Your task to perform on an android device: make emails show in primary in the gmail app Image 0: 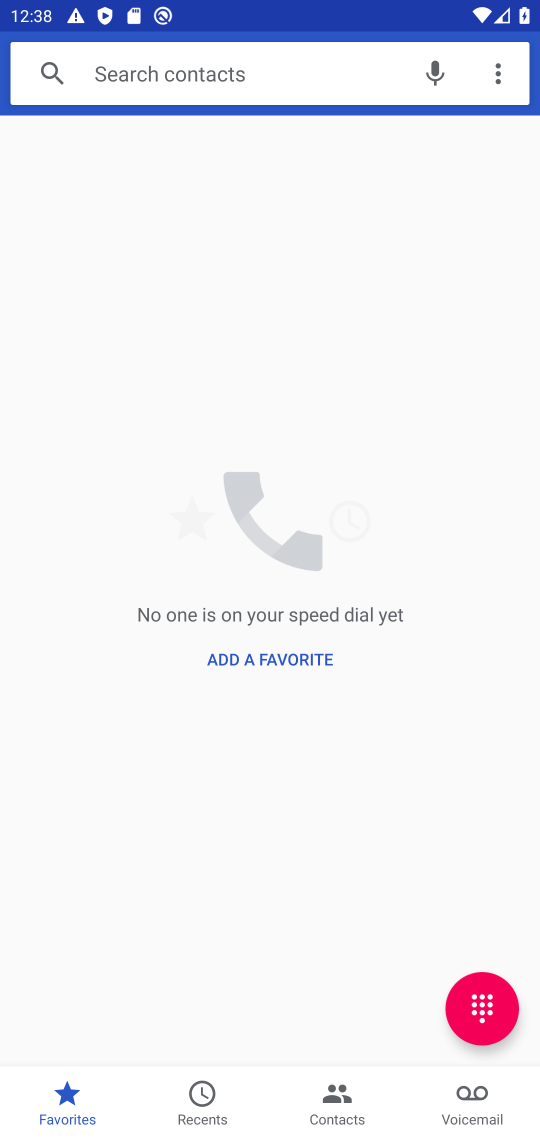
Step 0: press home button
Your task to perform on an android device: make emails show in primary in the gmail app Image 1: 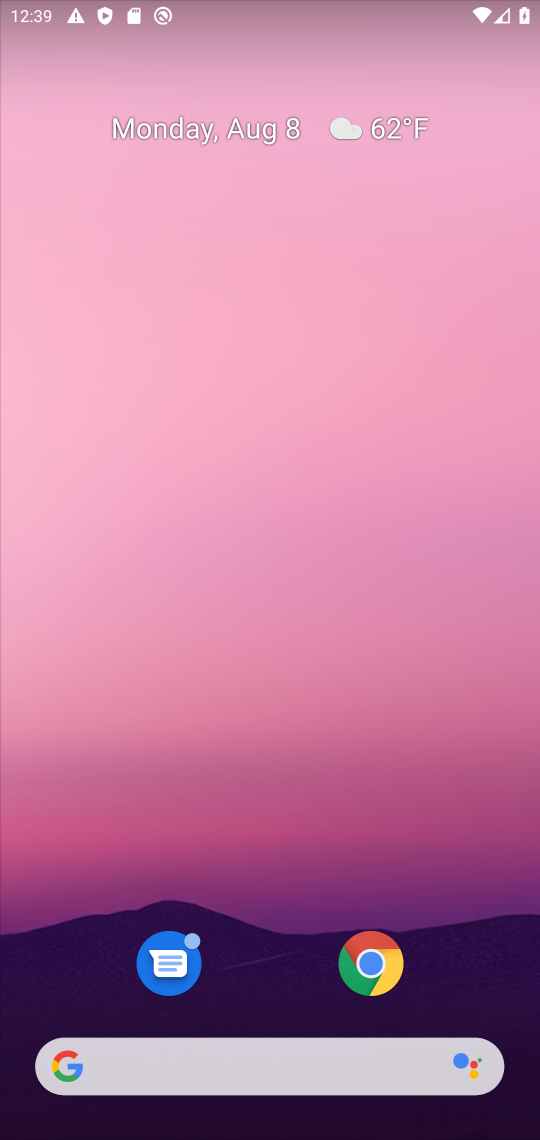
Step 1: drag from (463, 986) to (300, 70)
Your task to perform on an android device: make emails show in primary in the gmail app Image 2: 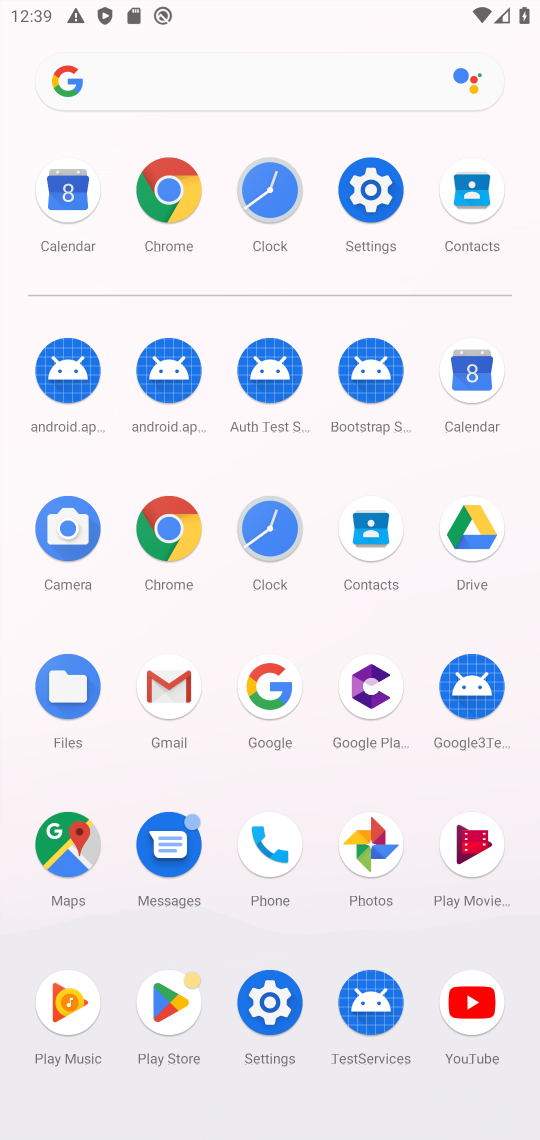
Step 2: click (154, 649)
Your task to perform on an android device: make emails show in primary in the gmail app Image 3: 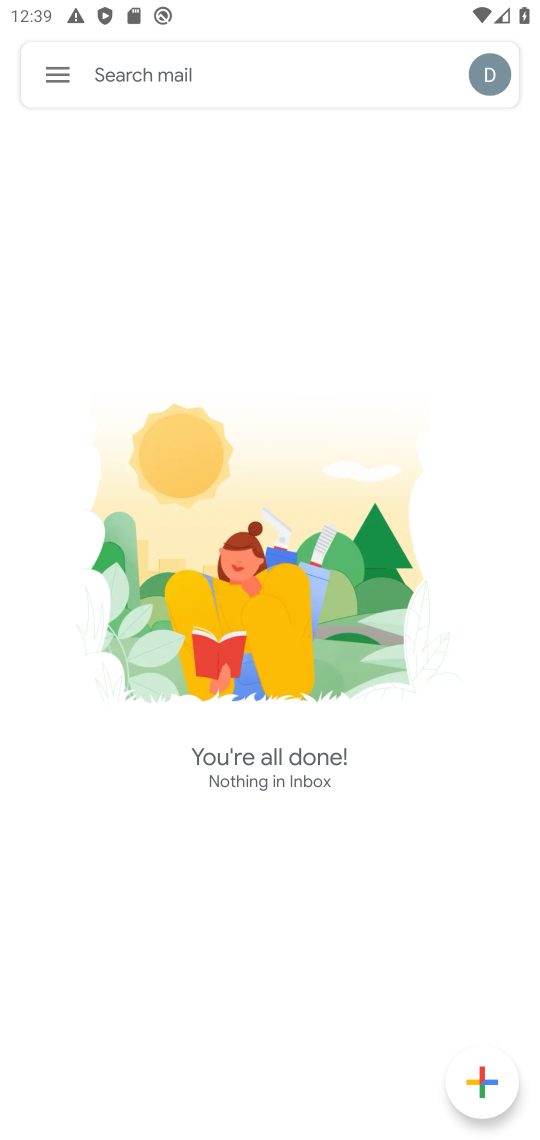
Step 3: task complete